Your task to perform on an android device: Go to privacy settings Image 0: 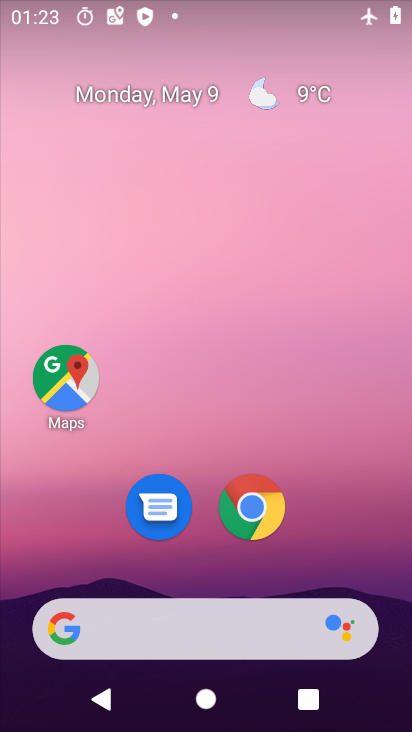
Step 0: drag from (211, 720) to (211, 251)
Your task to perform on an android device: Go to privacy settings Image 1: 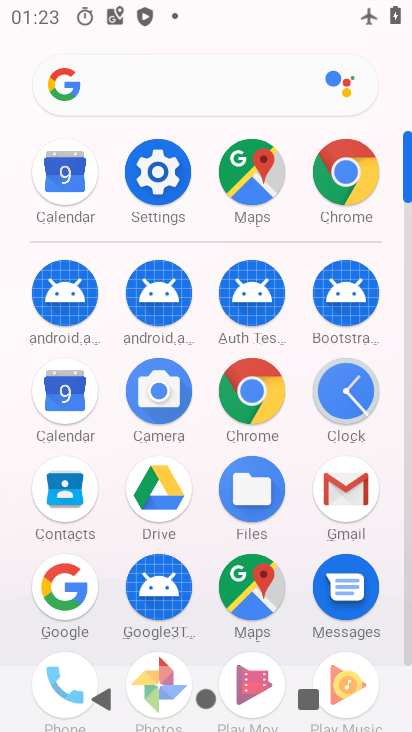
Step 1: click (150, 180)
Your task to perform on an android device: Go to privacy settings Image 2: 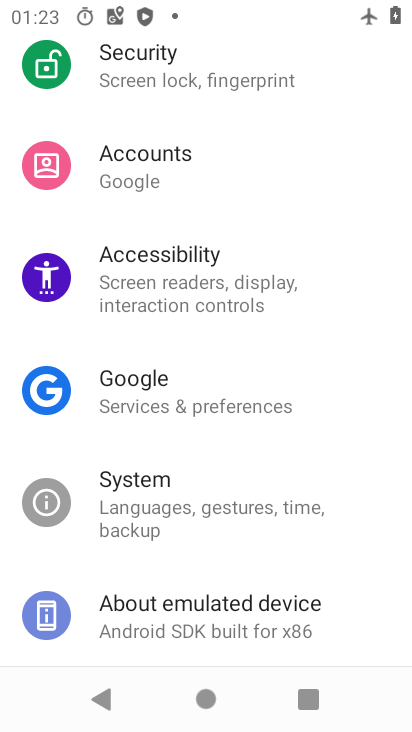
Step 2: drag from (333, 179) to (298, 549)
Your task to perform on an android device: Go to privacy settings Image 3: 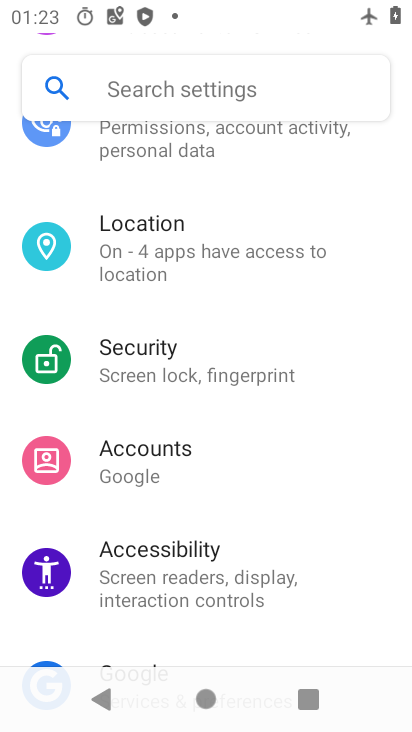
Step 3: drag from (273, 185) to (243, 550)
Your task to perform on an android device: Go to privacy settings Image 4: 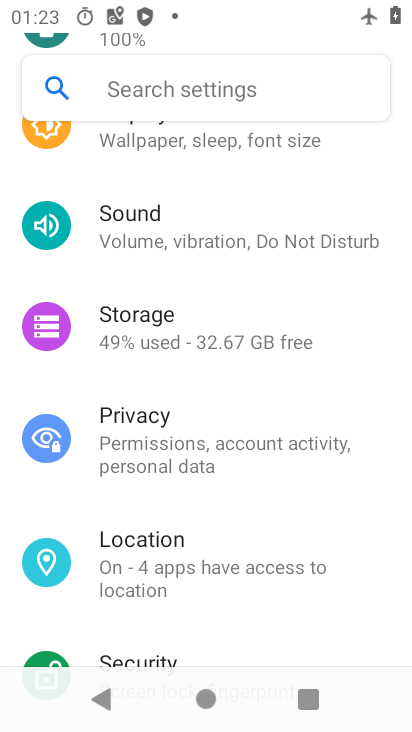
Step 4: drag from (290, 165) to (275, 582)
Your task to perform on an android device: Go to privacy settings Image 5: 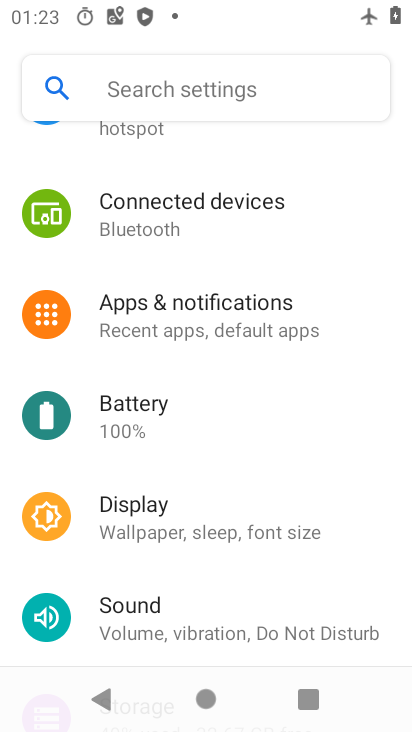
Step 5: drag from (300, 195) to (300, 541)
Your task to perform on an android device: Go to privacy settings Image 6: 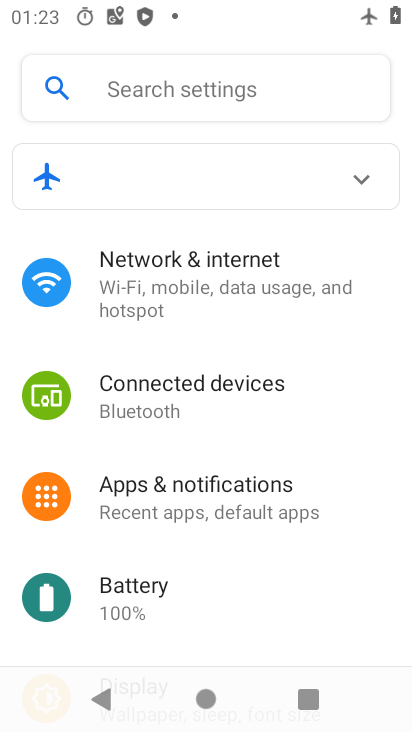
Step 6: drag from (230, 605) to (235, 284)
Your task to perform on an android device: Go to privacy settings Image 7: 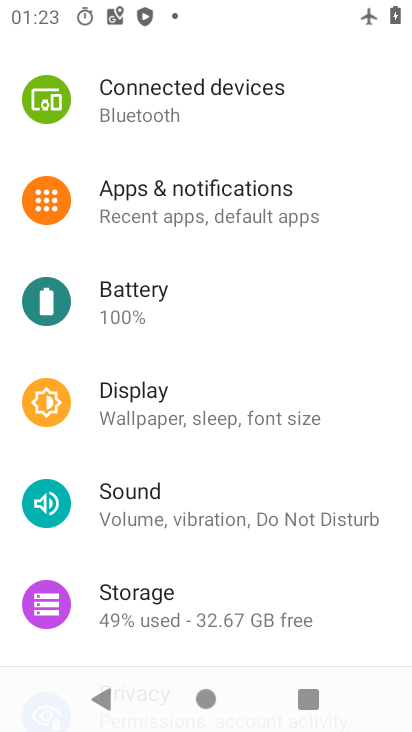
Step 7: drag from (230, 586) to (242, 364)
Your task to perform on an android device: Go to privacy settings Image 8: 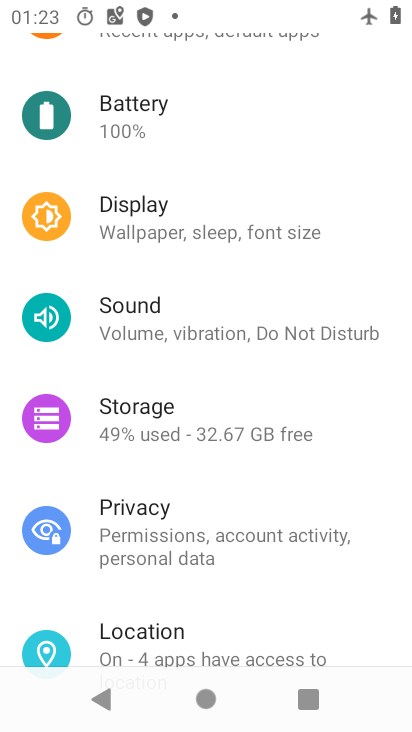
Step 8: click (193, 532)
Your task to perform on an android device: Go to privacy settings Image 9: 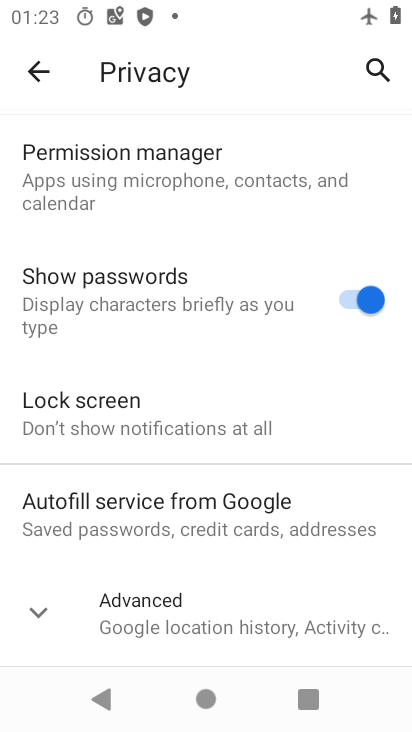
Step 9: task complete